Your task to perform on an android device: turn off location history Image 0: 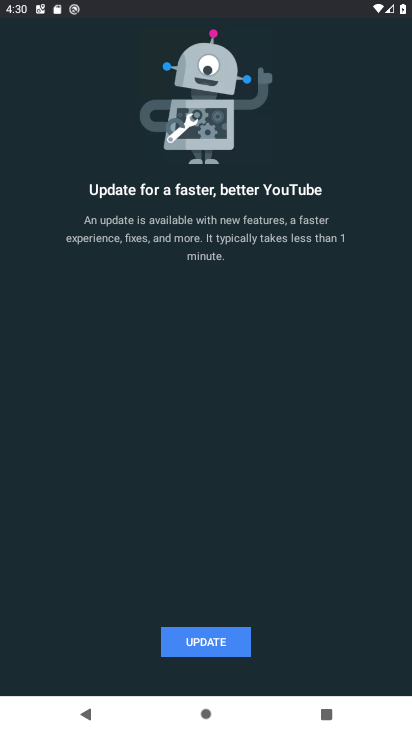
Step 0: drag from (226, 714) to (170, 61)
Your task to perform on an android device: turn off location history Image 1: 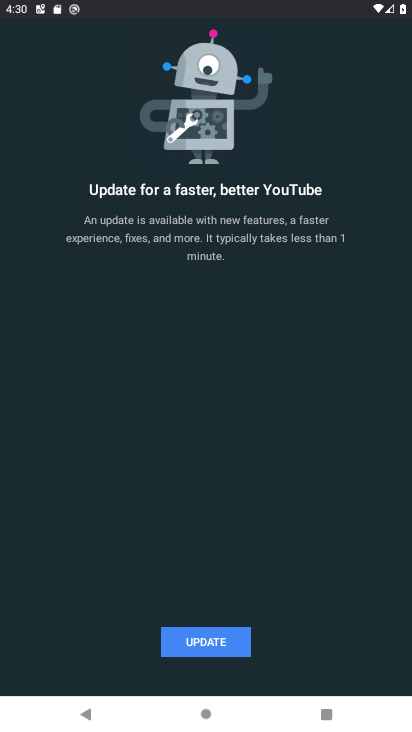
Step 1: press back button
Your task to perform on an android device: turn off location history Image 2: 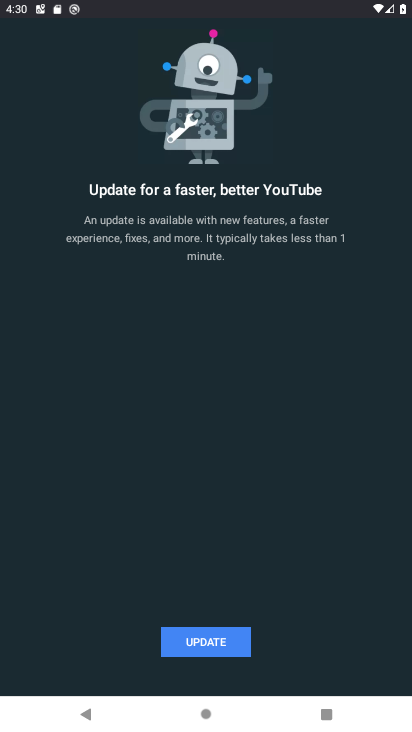
Step 2: press back button
Your task to perform on an android device: turn off location history Image 3: 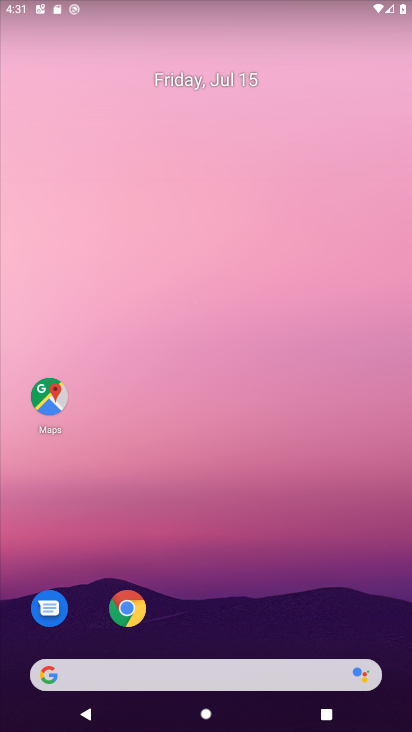
Step 3: drag from (208, 622) to (130, 62)
Your task to perform on an android device: turn off location history Image 4: 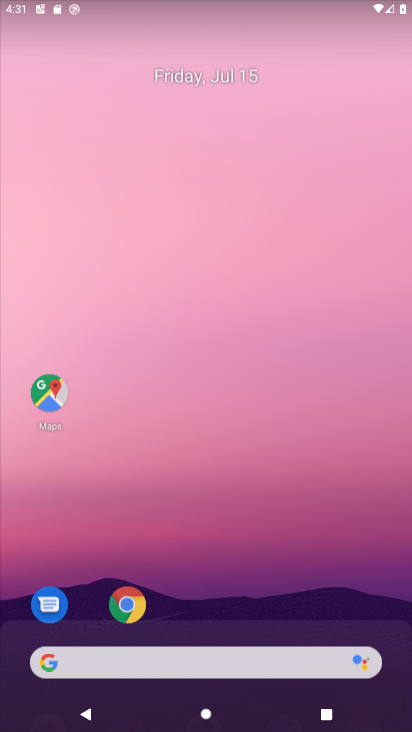
Step 4: drag from (237, 467) to (223, 1)
Your task to perform on an android device: turn off location history Image 5: 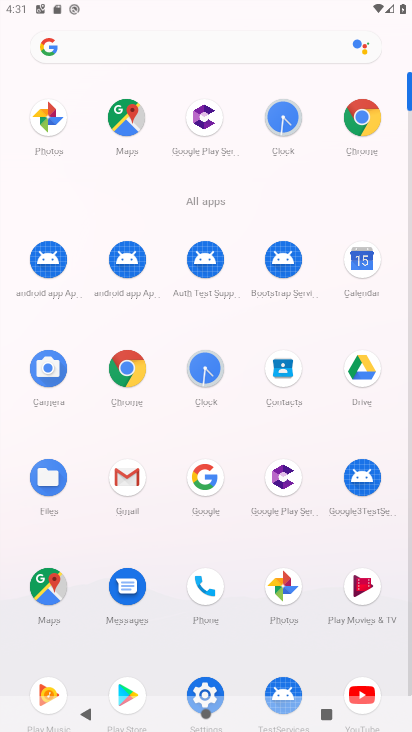
Step 5: drag from (230, 594) to (262, 303)
Your task to perform on an android device: turn off location history Image 6: 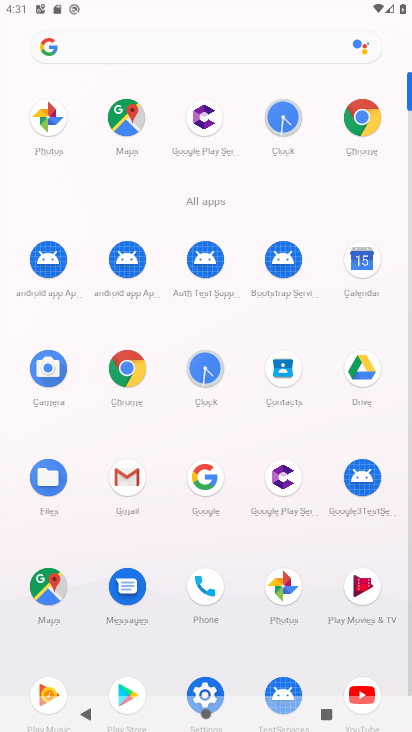
Step 6: drag from (232, 525) to (249, 295)
Your task to perform on an android device: turn off location history Image 7: 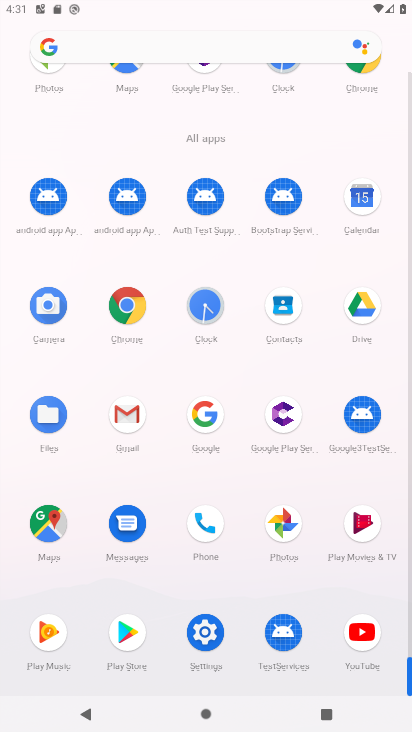
Step 7: click (202, 642)
Your task to perform on an android device: turn off location history Image 8: 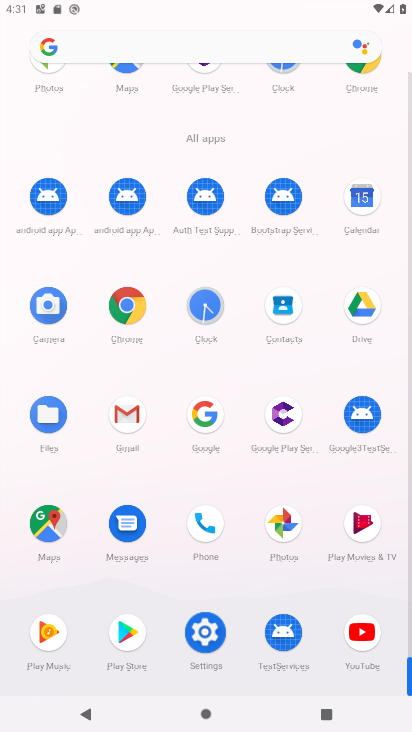
Step 8: click (202, 642)
Your task to perform on an android device: turn off location history Image 9: 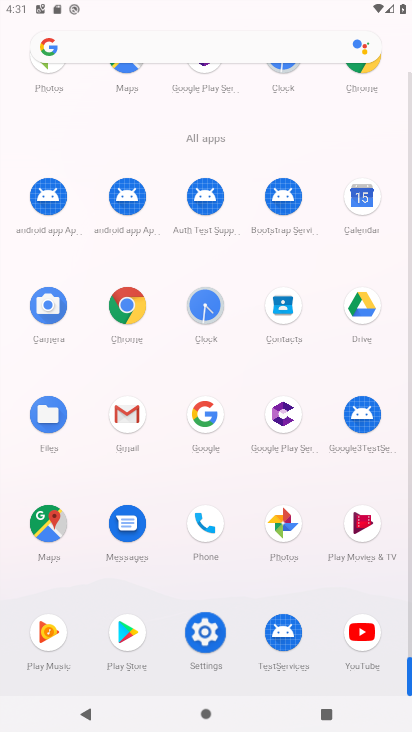
Step 9: click (202, 641)
Your task to perform on an android device: turn off location history Image 10: 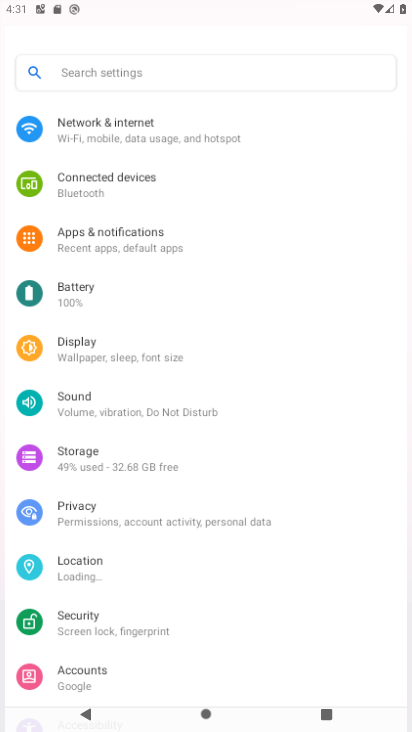
Step 10: click (206, 640)
Your task to perform on an android device: turn off location history Image 11: 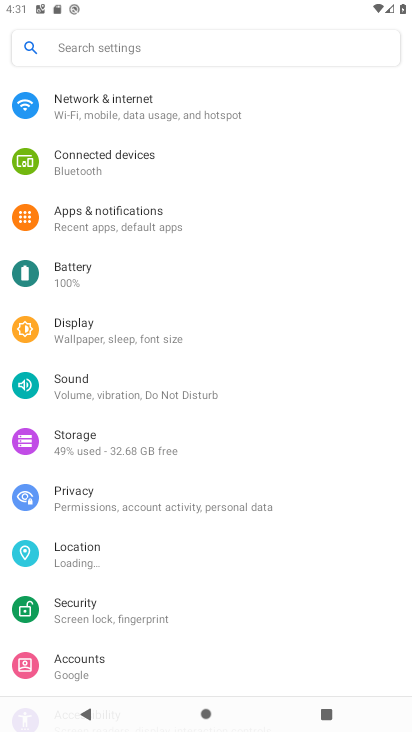
Step 11: click (206, 640)
Your task to perform on an android device: turn off location history Image 12: 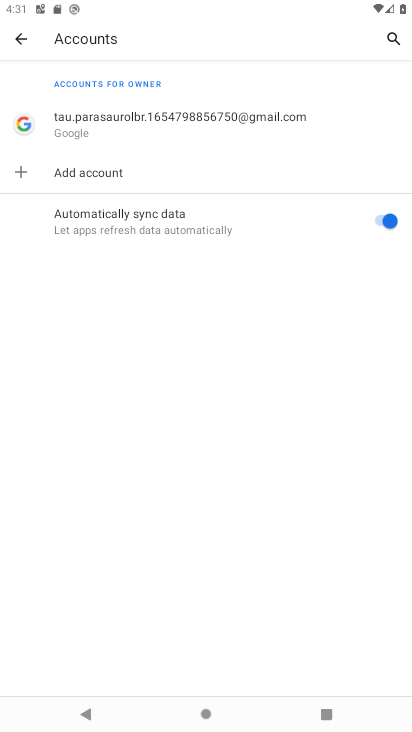
Step 12: click (20, 37)
Your task to perform on an android device: turn off location history Image 13: 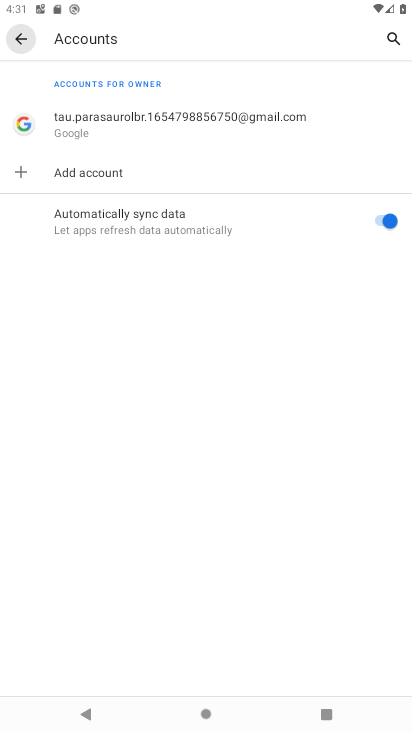
Step 13: click (21, 36)
Your task to perform on an android device: turn off location history Image 14: 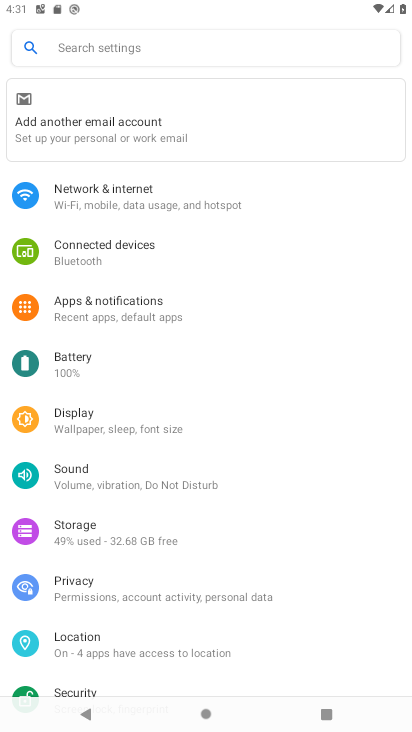
Step 14: drag from (96, 523) to (112, 260)
Your task to perform on an android device: turn off location history Image 15: 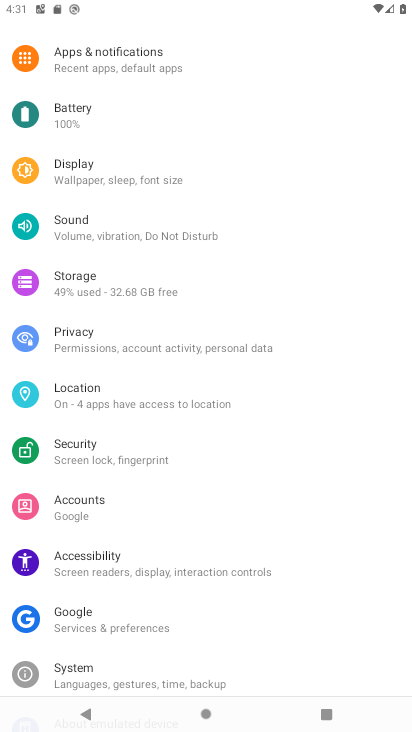
Step 15: click (86, 394)
Your task to perform on an android device: turn off location history Image 16: 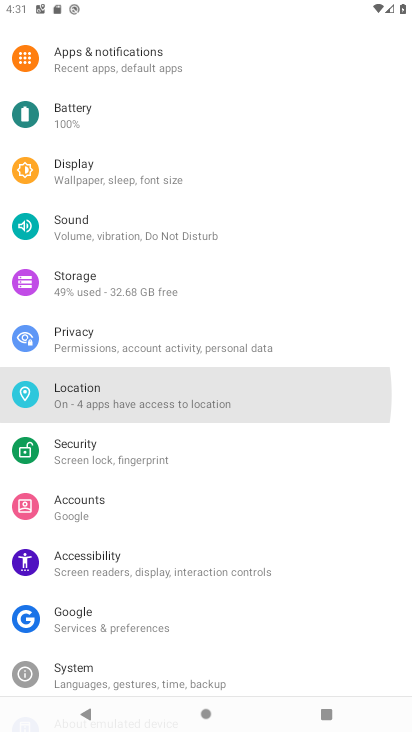
Step 16: click (86, 394)
Your task to perform on an android device: turn off location history Image 17: 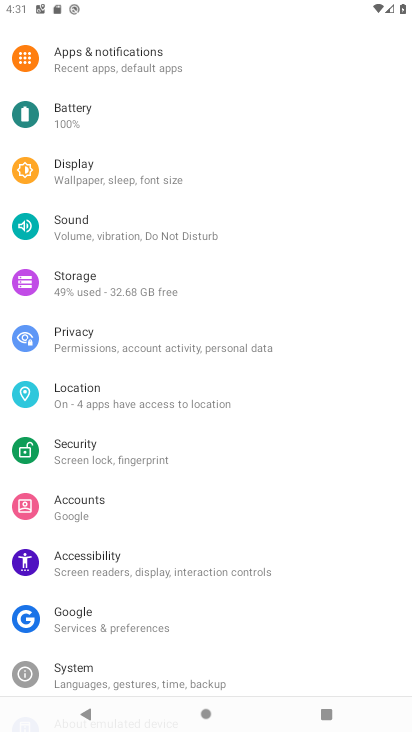
Step 17: click (88, 395)
Your task to perform on an android device: turn off location history Image 18: 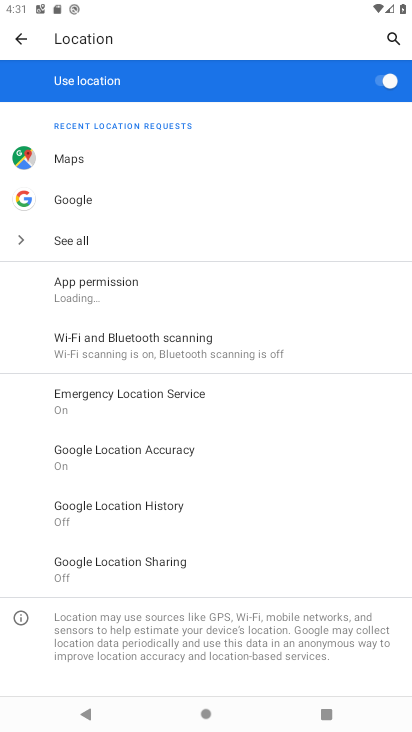
Step 18: click (101, 507)
Your task to perform on an android device: turn off location history Image 19: 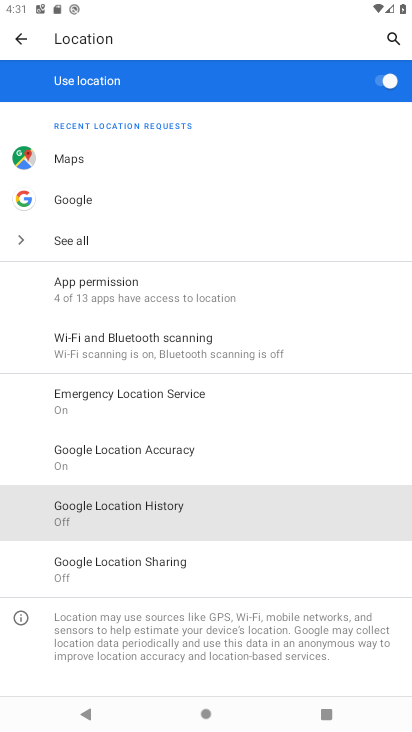
Step 19: click (112, 509)
Your task to perform on an android device: turn off location history Image 20: 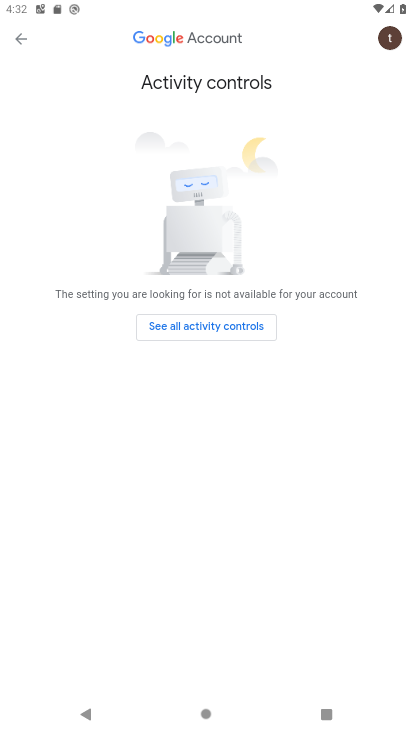
Step 20: task complete